Your task to perform on an android device: check storage Image 0: 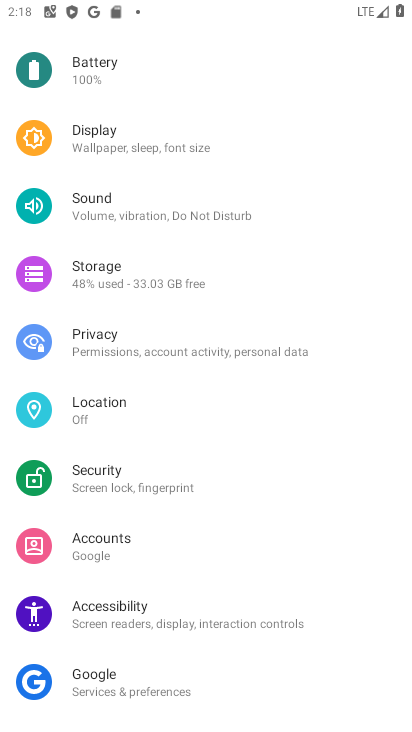
Step 0: press home button
Your task to perform on an android device: check storage Image 1: 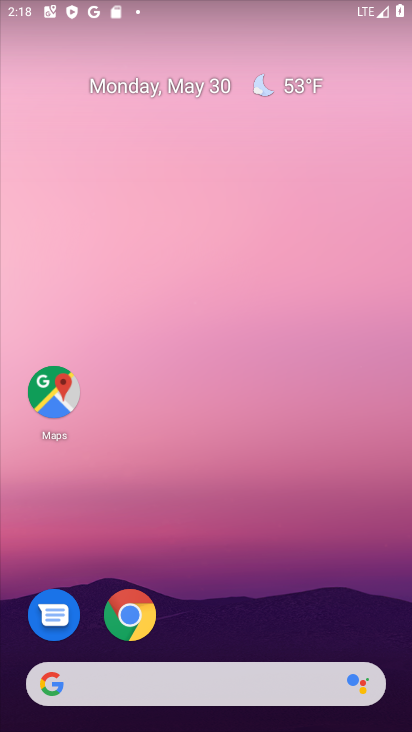
Step 1: drag from (291, 634) to (233, 124)
Your task to perform on an android device: check storage Image 2: 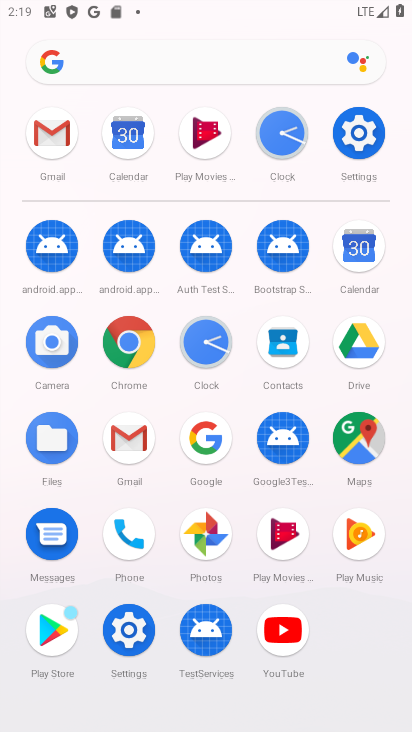
Step 2: click (369, 127)
Your task to perform on an android device: check storage Image 3: 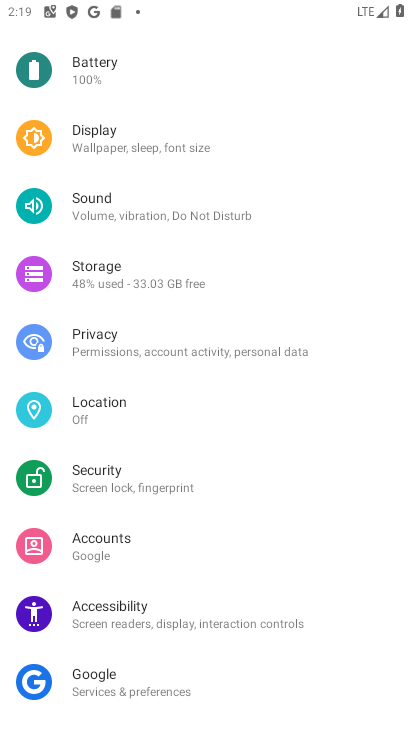
Step 3: click (148, 273)
Your task to perform on an android device: check storage Image 4: 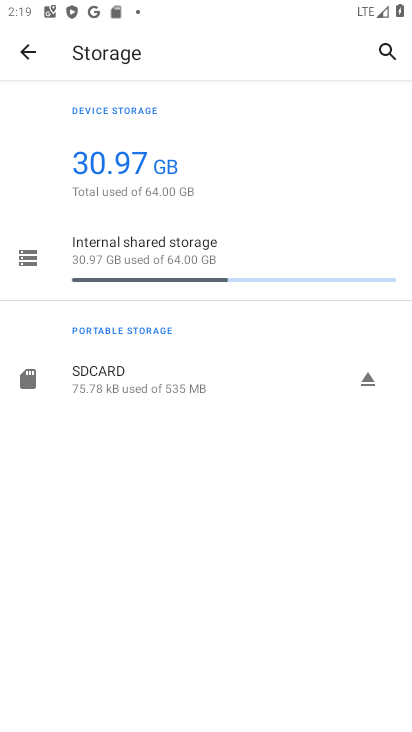
Step 4: task complete